Your task to perform on an android device: Open Maps and search for coffee Image 0: 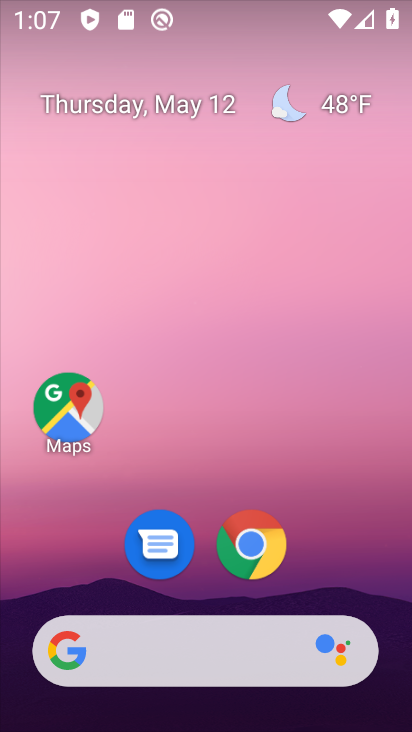
Step 0: drag from (294, 429) to (182, 0)
Your task to perform on an android device: Open Maps and search for coffee Image 1: 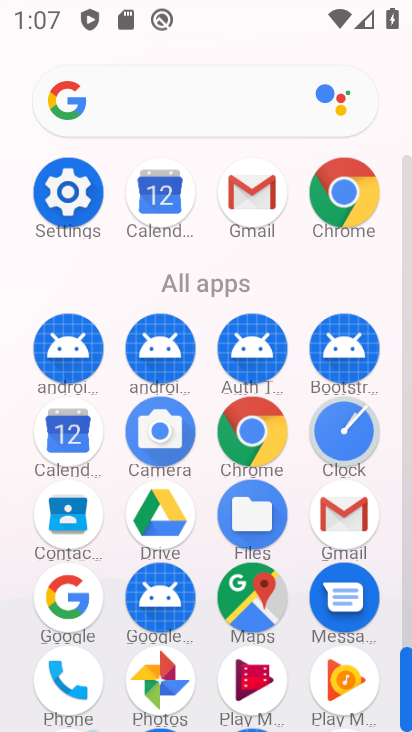
Step 1: drag from (20, 449) to (22, 180)
Your task to perform on an android device: Open Maps and search for coffee Image 2: 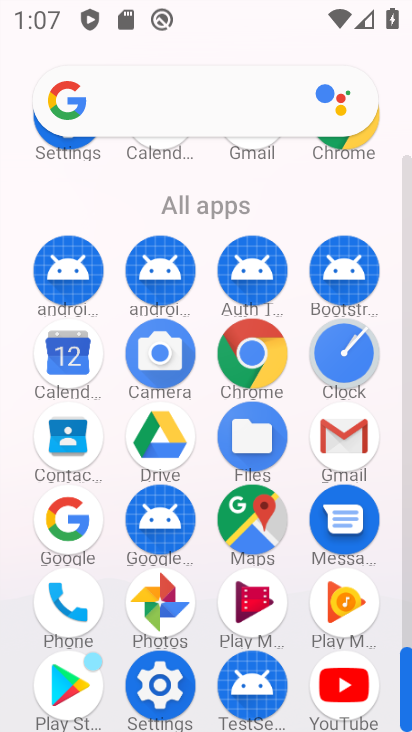
Step 2: click (252, 518)
Your task to perform on an android device: Open Maps and search for coffee Image 3: 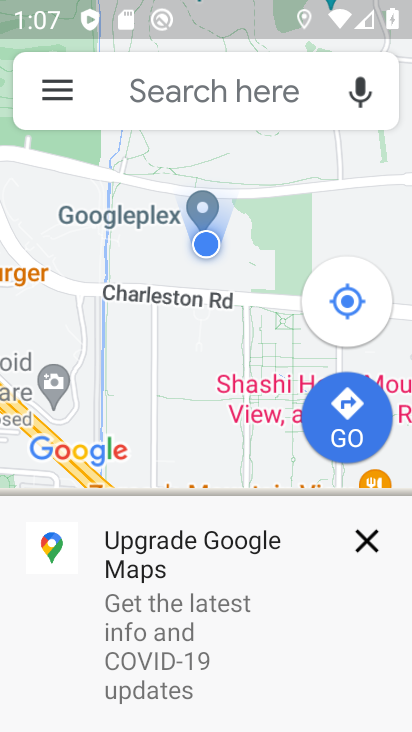
Step 3: click (127, 88)
Your task to perform on an android device: Open Maps and search for coffee Image 4: 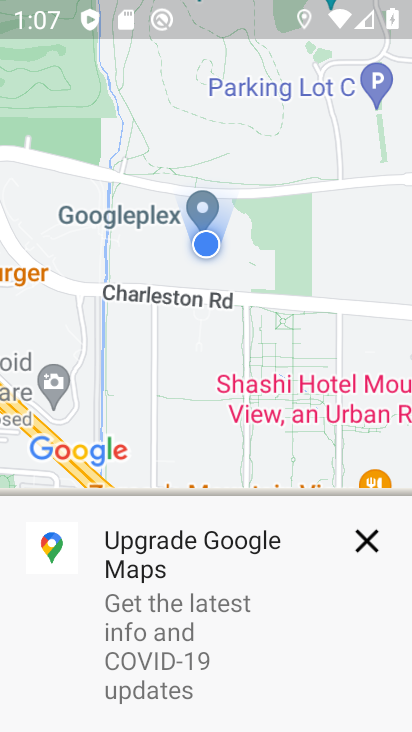
Step 4: click (364, 544)
Your task to perform on an android device: Open Maps and search for coffee Image 5: 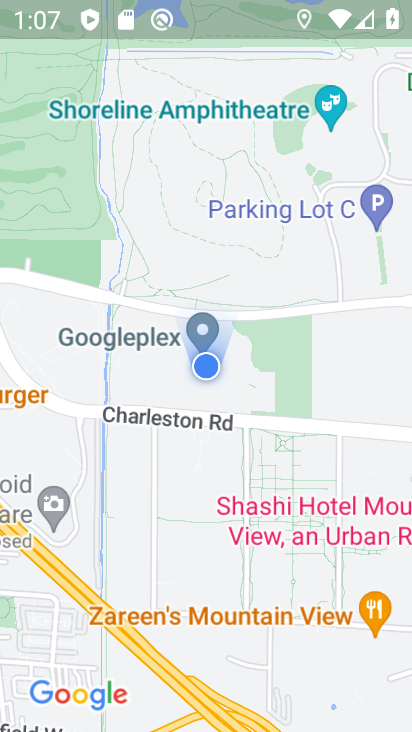
Step 5: drag from (225, 71) to (225, 256)
Your task to perform on an android device: Open Maps and search for coffee Image 6: 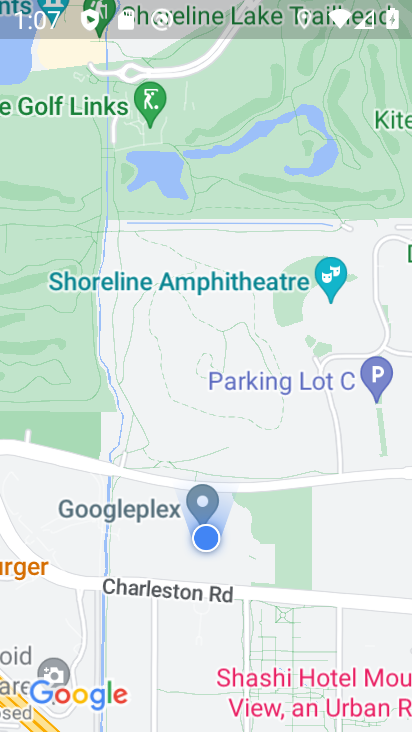
Step 6: click (219, 164)
Your task to perform on an android device: Open Maps and search for coffee Image 7: 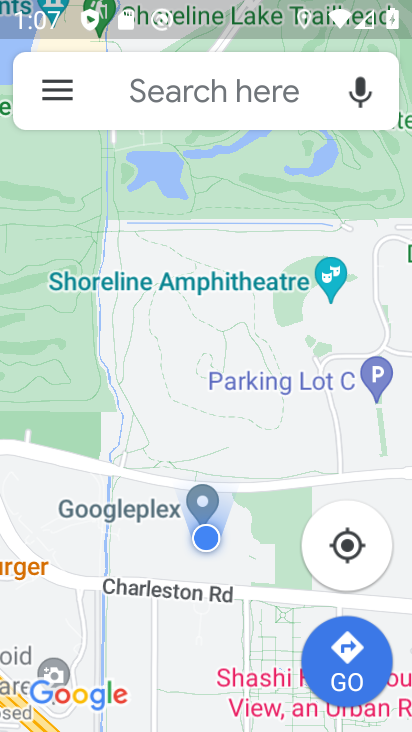
Step 7: click (136, 88)
Your task to perform on an android device: Open Maps and search for coffee Image 8: 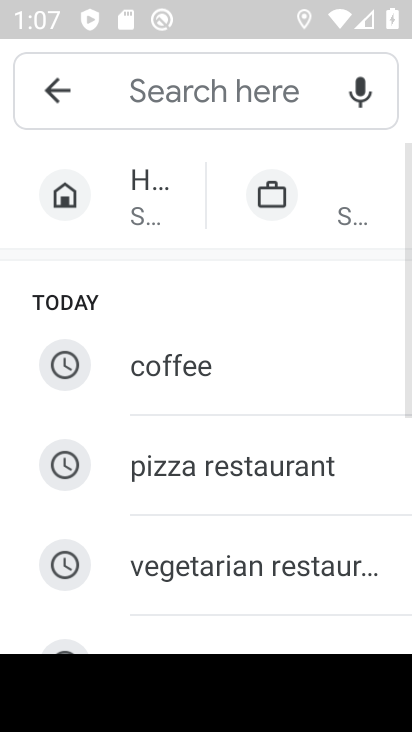
Step 8: click (193, 369)
Your task to perform on an android device: Open Maps and search for coffee Image 9: 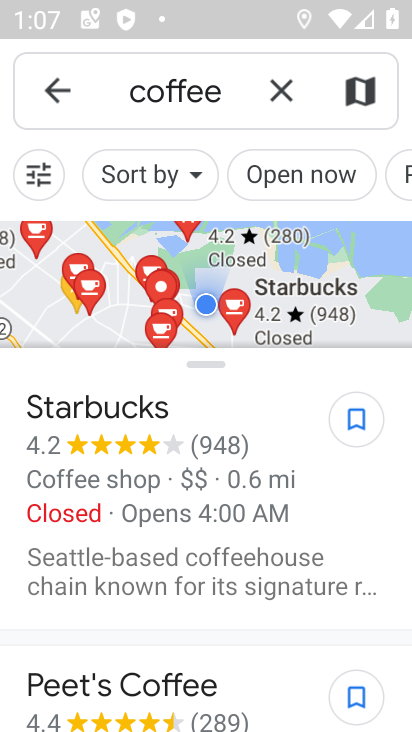
Step 9: task complete